Your task to perform on an android device: toggle airplane mode Image 0: 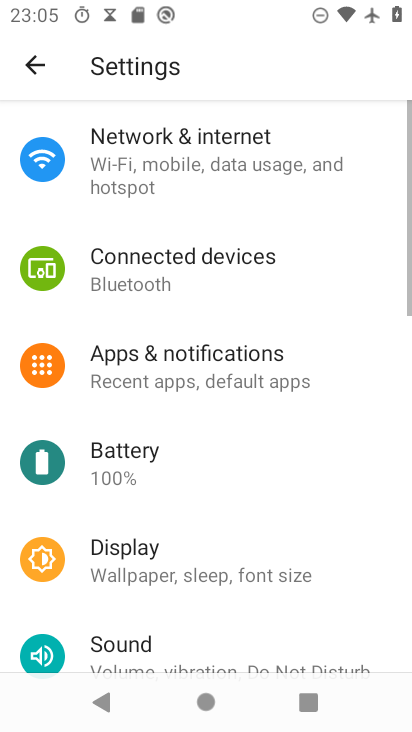
Step 0: press home button
Your task to perform on an android device: toggle airplane mode Image 1: 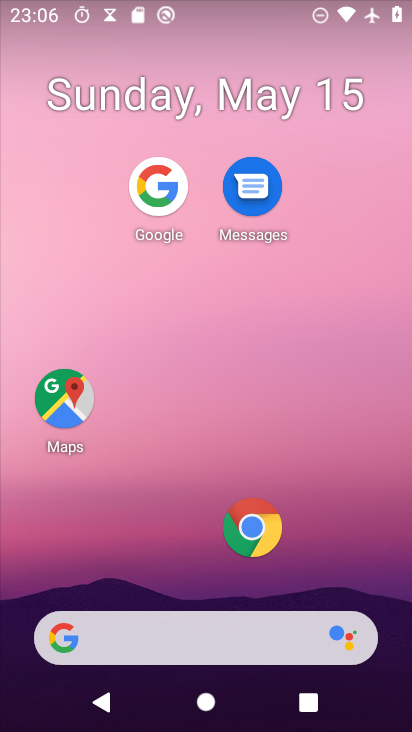
Step 1: drag from (165, 637) to (286, 159)
Your task to perform on an android device: toggle airplane mode Image 2: 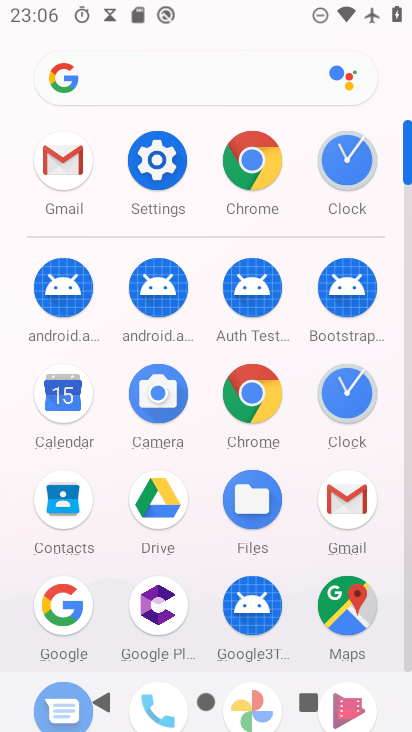
Step 2: click (147, 180)
Your task to perform on an android device: toggle airplane mode Image 3: 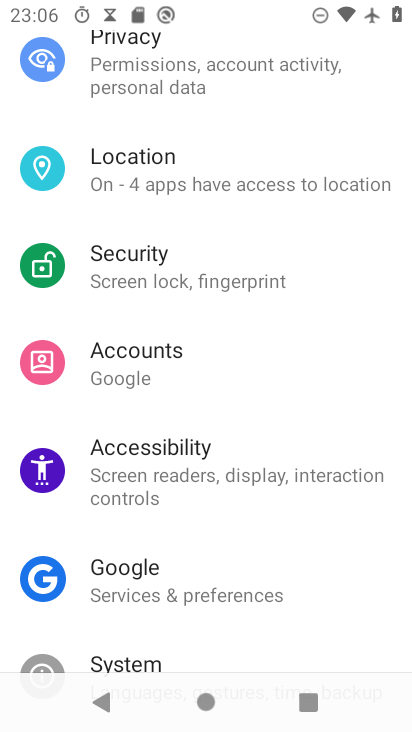
Step 3: drag from (273, 121) to (217, 488)
Your task to perform on an android device: toggle airplane mode Image 4: 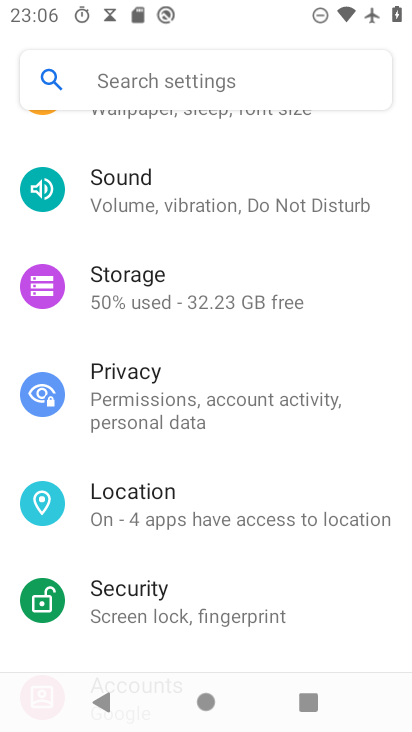
Step 4: drag from (284, 152) to (211, 559)
Your task to perform on an android device: toggle airplane mode Image 5: 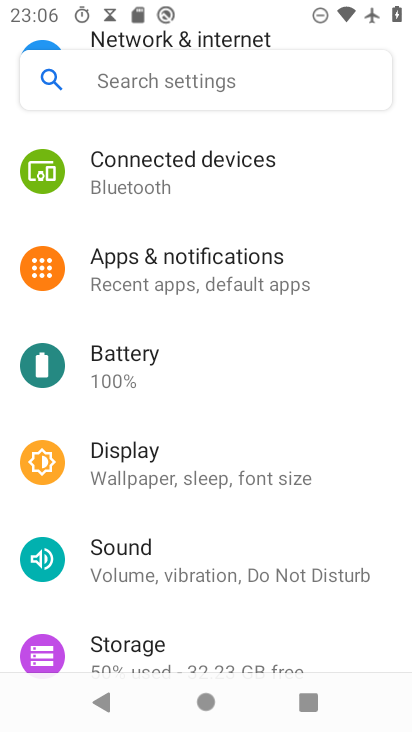
Step 5: drag from (280, 190) to (194, 596)
Your task to perform on an android device: toggle airplane mode Image 6: 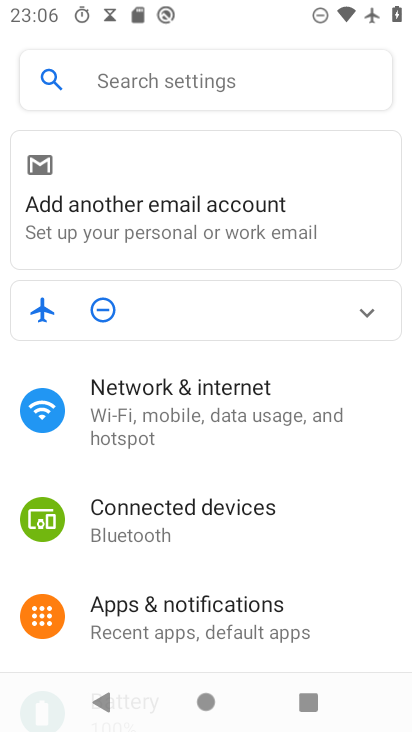
Step 6: click (199, 391)
Your task to perform on an android device: toggle airplane mode Image 7: 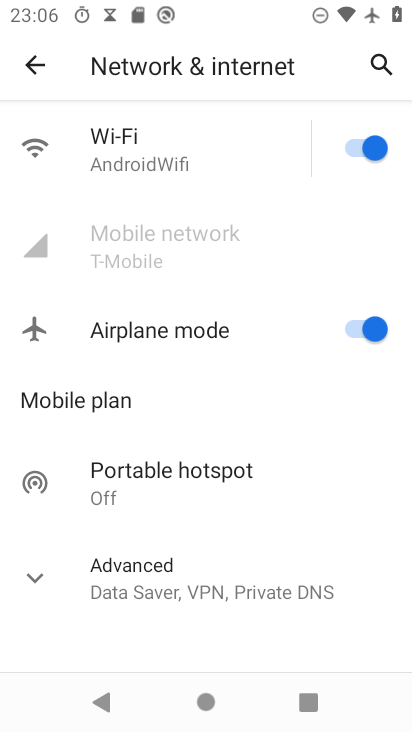
Step 7: click (347, 328)
Your task to perform on an android device: toggle airplane mode Image 8: 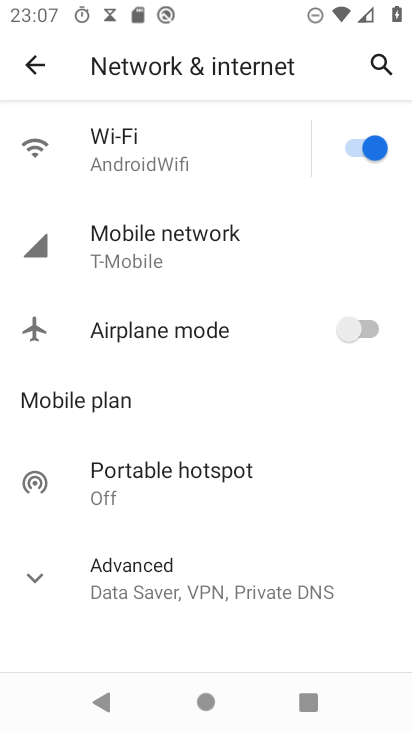
Step 8: task complete